Your task to perform on an android device: delete location history Image 0: 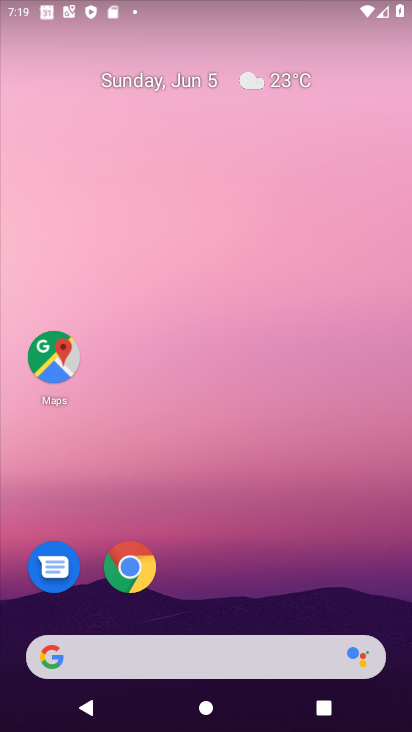
Step 0: drag from (394, 611) to (254, 45)
Your task to perform on an android device: delete location history Image 1: 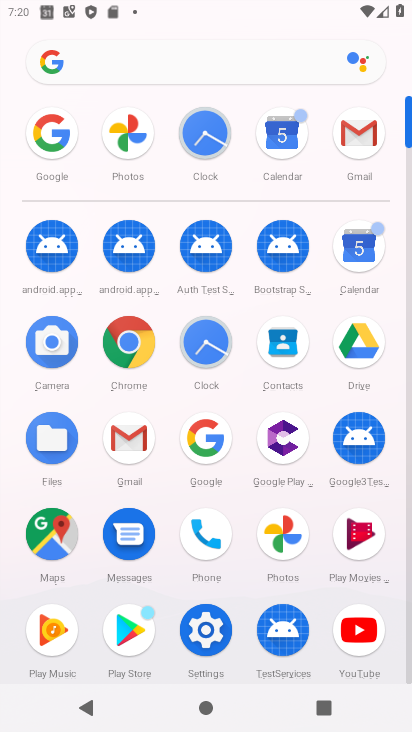
Step 1: click (211, 644)
Your task to perform on an android device: delete location history Image 2: 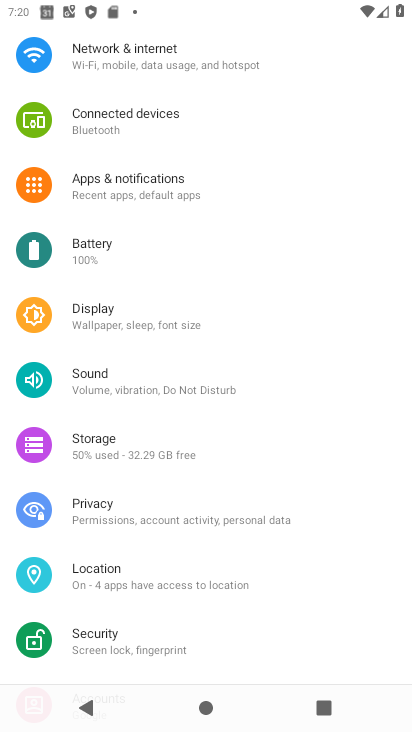
Step 2: click (175, 580)
Your task to perform on an android device: delete location history Image 3: 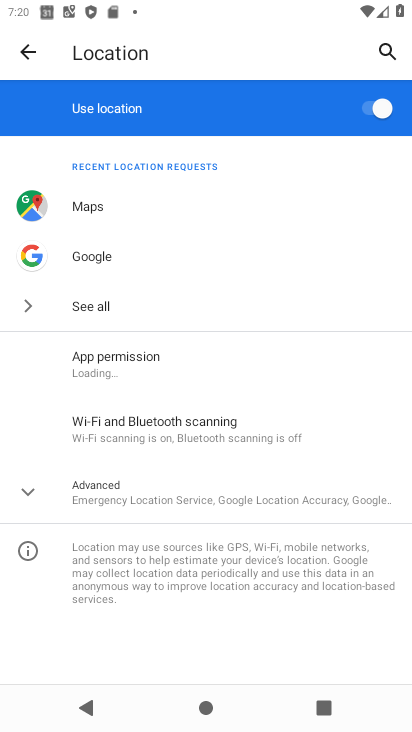
Step 3: click (161, 499)
Your task to perform on an android device: delete location history Image 4: 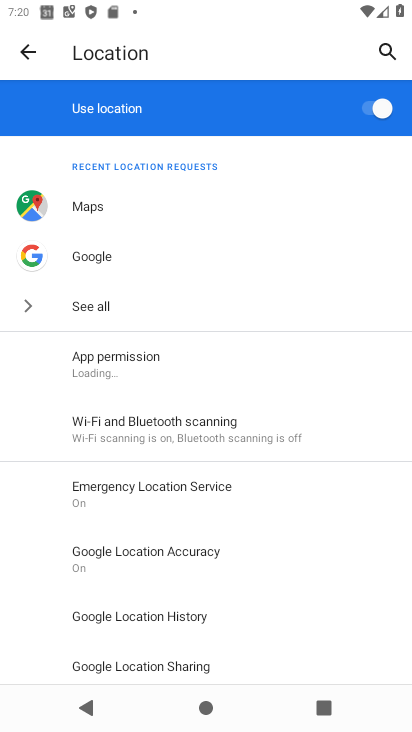
Step 4: click (145, 615)
Your task to perform on an android device: delete location history Image 5: 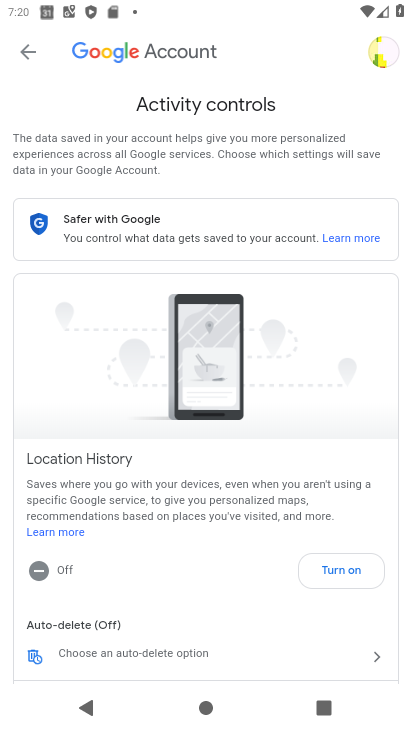
Step 5: click (168, 652)
Your task to perform on an android device: delete location history Image 6: 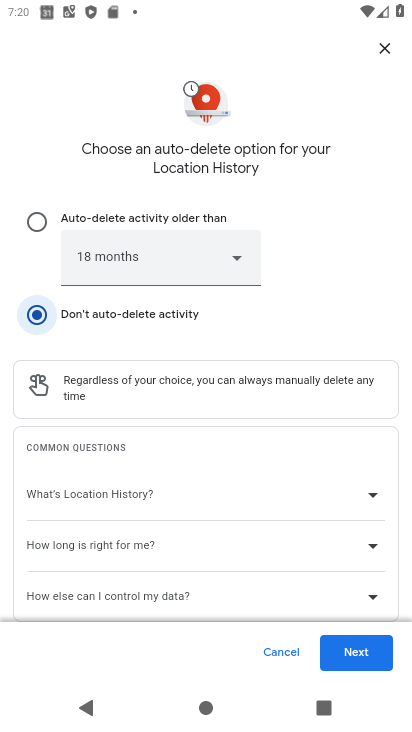
Step 6: click (356, 647)
Your task to perform on an android device: delete location history Image 7: 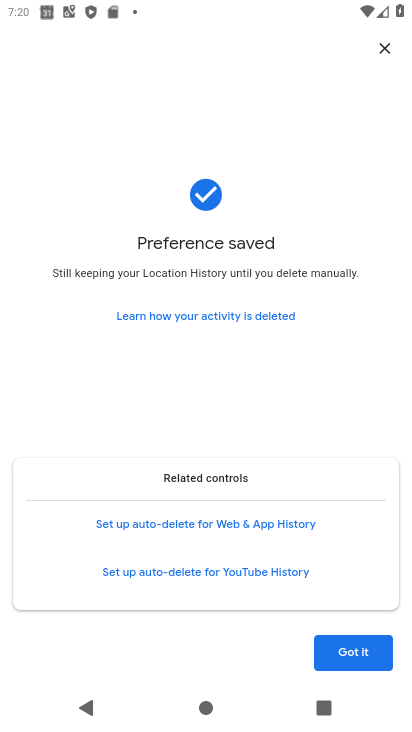
Step 7: task complete